Your task to perform on an android device: Show me popular videos on Youtube Image 0: 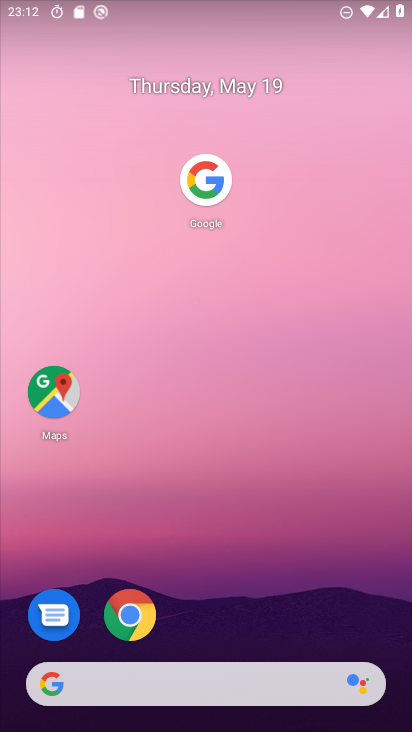
Step 0: drag from (235, 597) to (290, 82)
Your task to perform on an android device: Show me popular videos on Youtube Image 1: 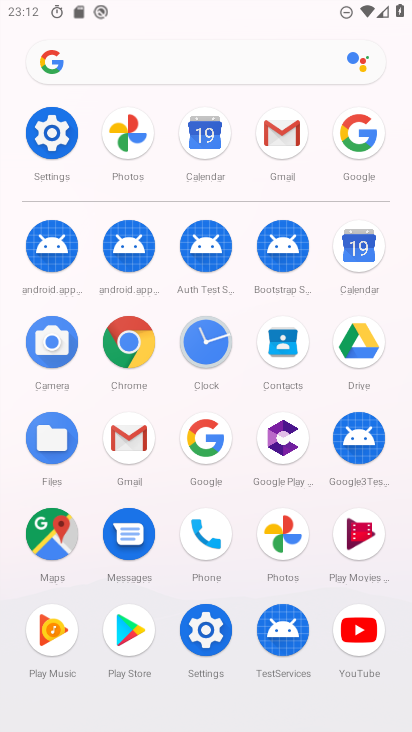
Step 1: click (358, 633)
Your task to perform on an android device: Show me popular videos on Youtube Image 2: 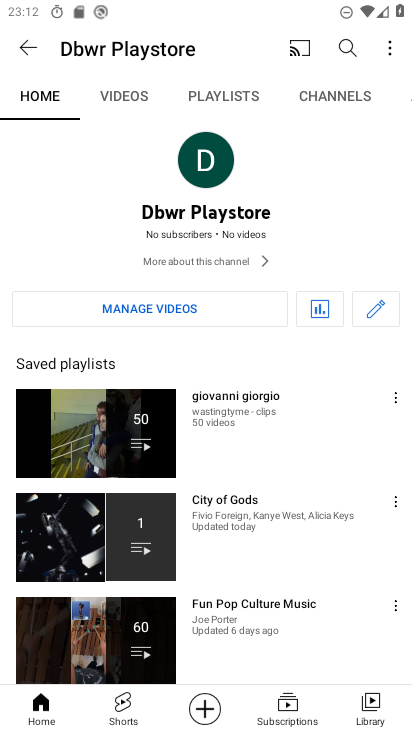
Step 2: click (343, 47)
Your task to perform on an android device: Show me popular videos on Youtube Image 3: 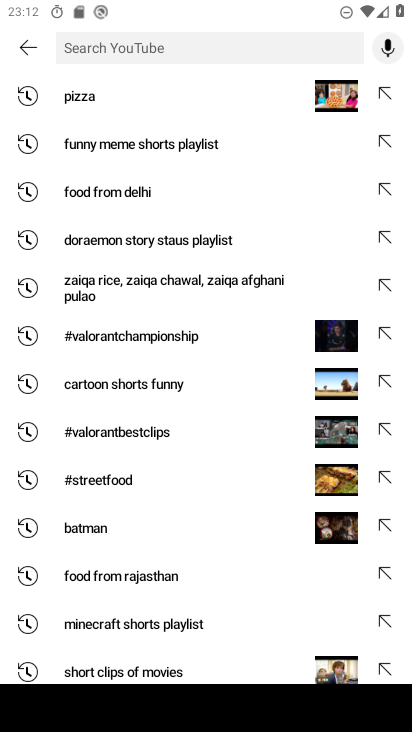
Step 3: press back button
Your task to perform on an android device: Show me popular videos on Youtube Image 4: 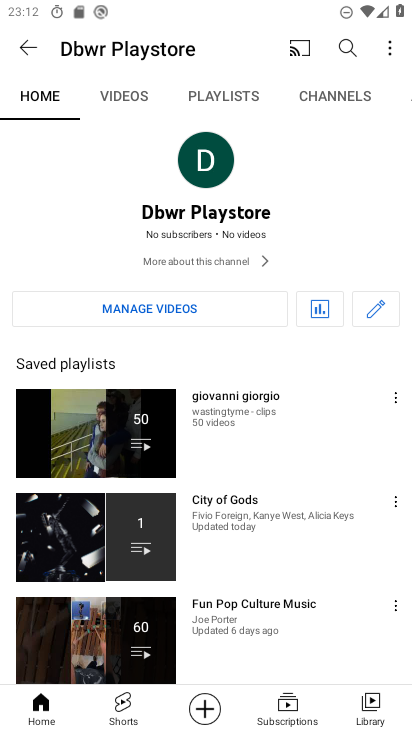
Step 4: click (40, 712)
Your task to perform on an android device: Show me popular videos on Youtube Image 5: 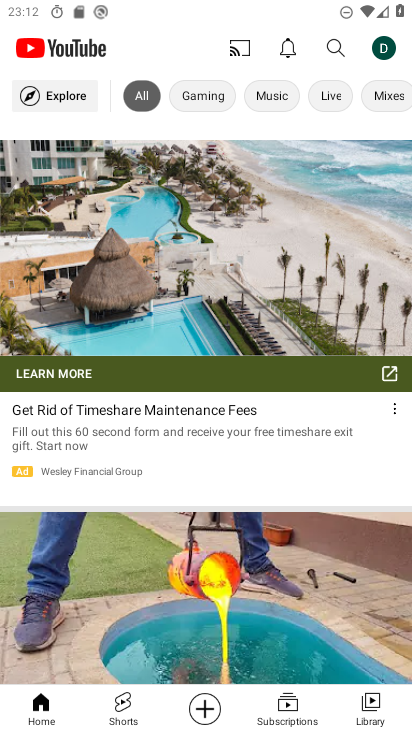
Step 5: task complete